Your task to perform on an android device: Open maps Image 0: 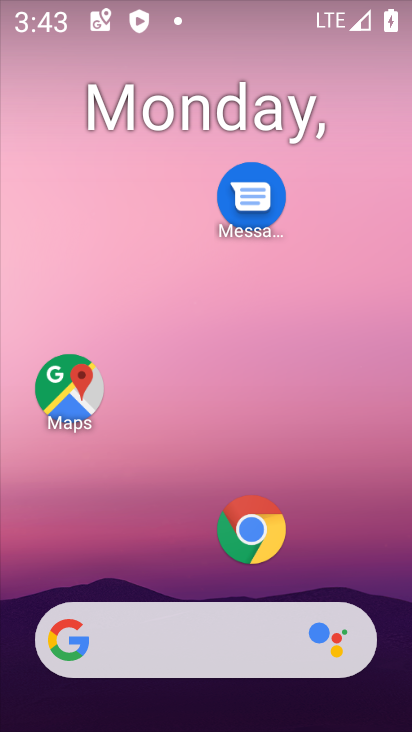
Step 0: click (73, 390)
Your task to perform on an android device: Open maps Image 1: 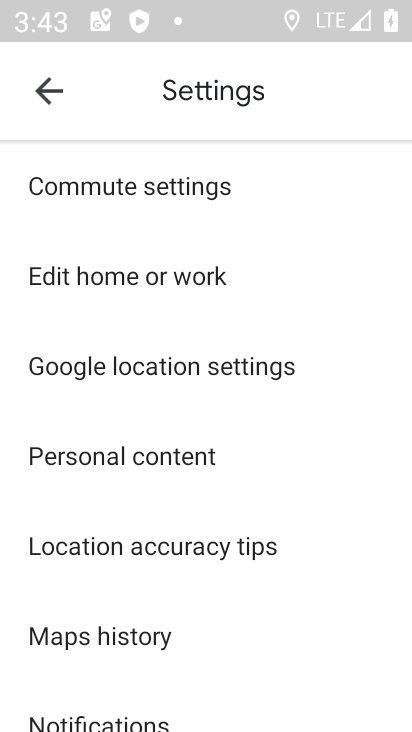
Step 1: click (46, 70)
Your task to perform on an android device: Open maps Image 2: 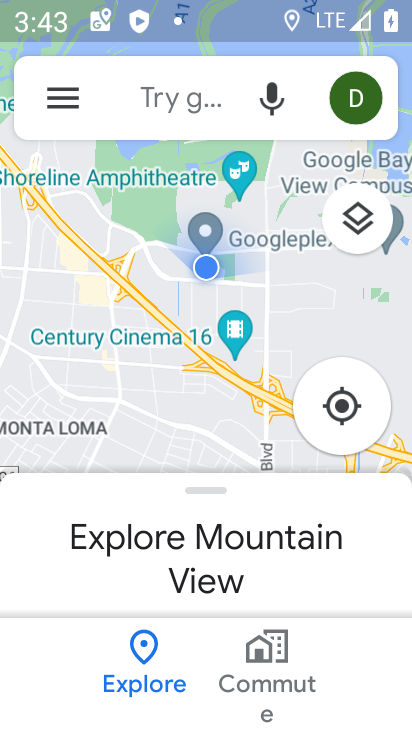
Step 2: task complete